Your task to perform on an android device: Search for pizza restaurants on Maps Image 0: 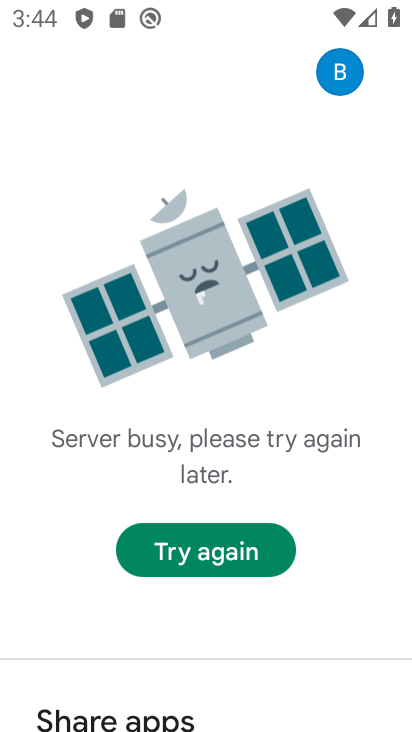
Step 0: press back button
Your task to perform on an android device: Search for pizza restaurants on Maps Image 1: 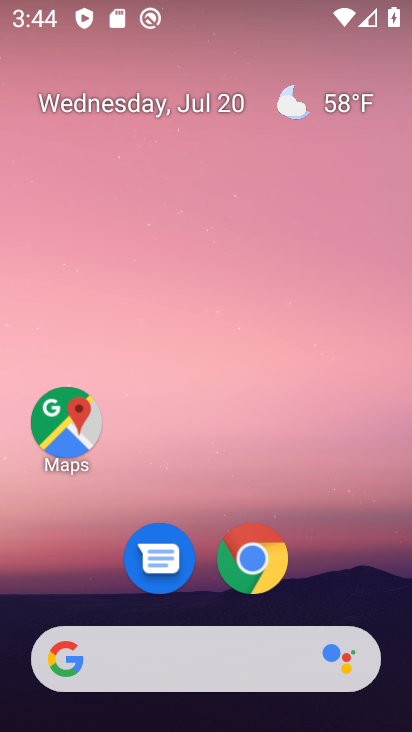
Step 1: click (62, 420)
Your task to perform on an android device: Search for pizza restaurants on Maps Image 2: 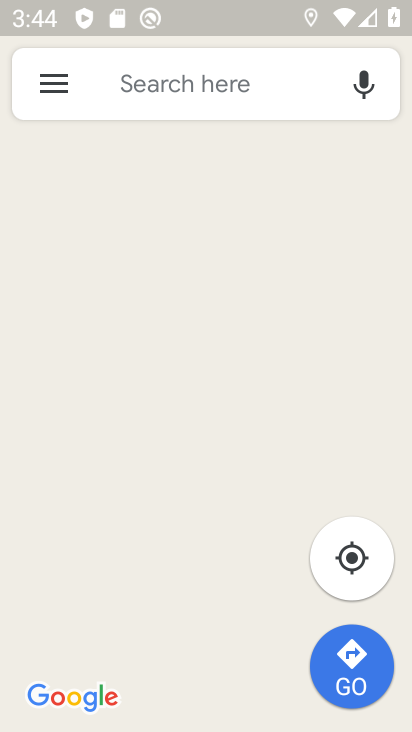
Step 2: click (209, 61)
Your task to perform on an android device: Search for pizza restaurants on Maps Image 3: 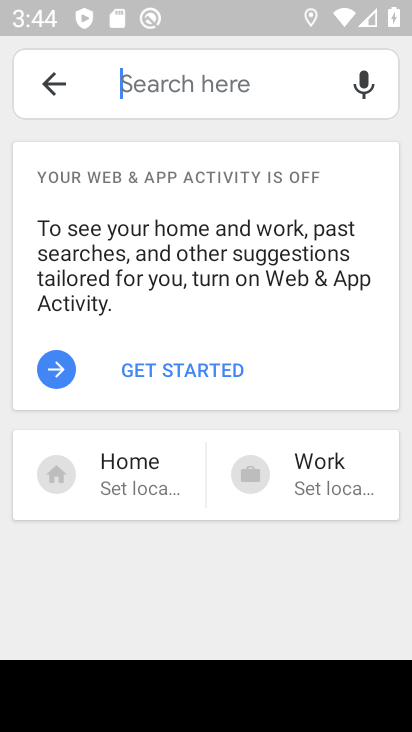
Step 3: type "pizza restaurants"
Your task to perform on an android device: Search for pizza restaurants on Maps Image 4: 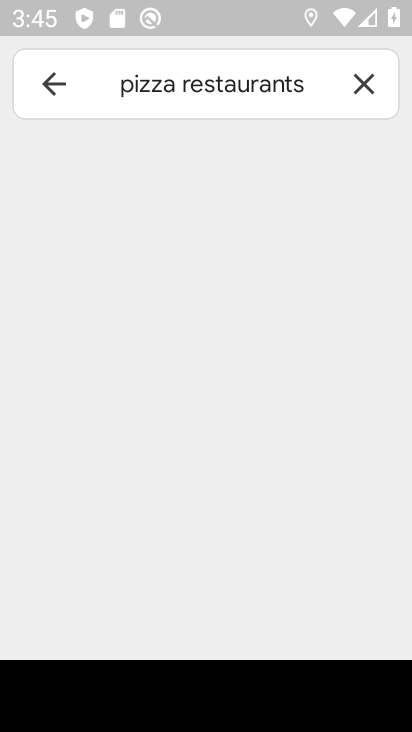
Step 4: click (44, 82)
Your task to perform on an android device: Search for pizza restaurants on Maps Image 5: 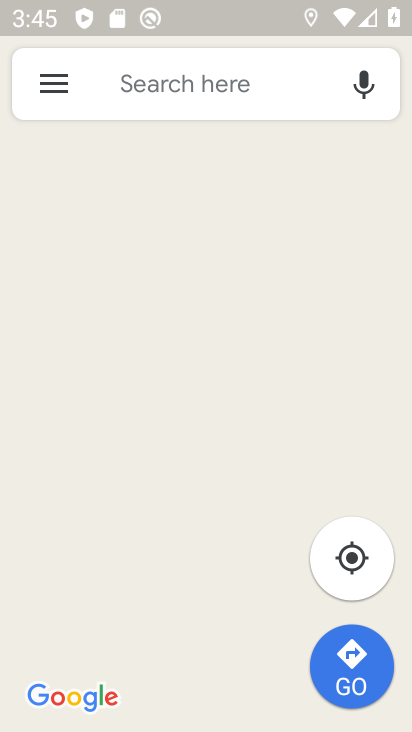
Step 5: click (160, 74)
Your task to perform on an android device: Search for pizza restaurants on Maps Image 6: 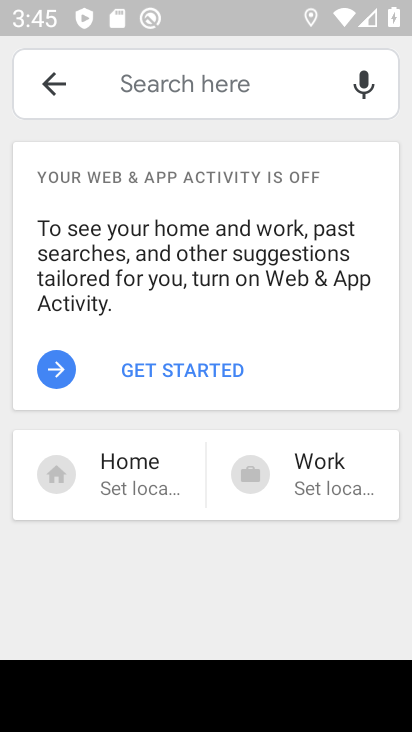
Step 6: drag from (167, 616) to (230, 185)
Your task to perform on an android device: Search for pizza restaurants on Maps Image 7: 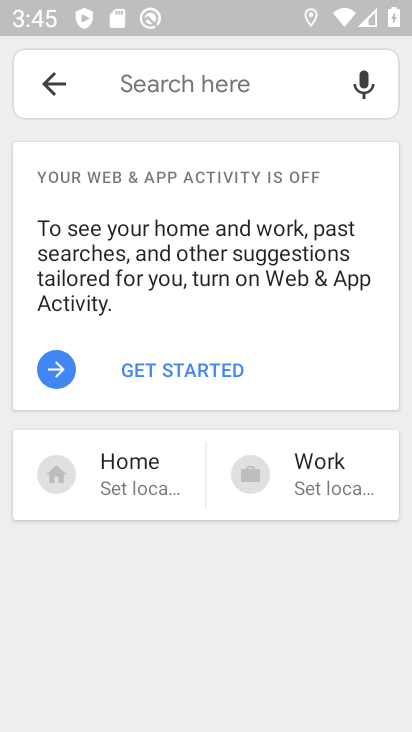
Step 7: click (232, 71)
Your task to perform on an android device: Search for pizza restaurants on Maps Image 8: 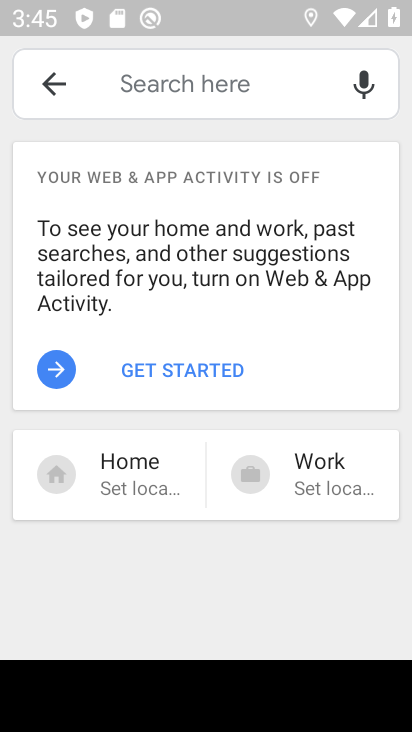
Step 8: type "pizza "
Your task to perform on an android device: Search for pizza restaurants on Maps Image 9: 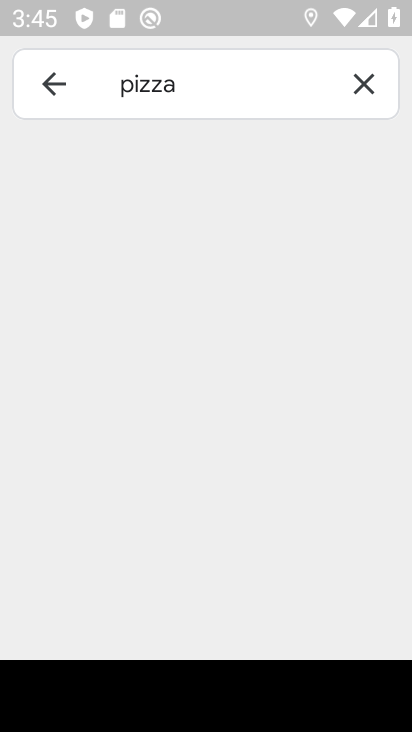
Step 9: task complete